Your task to perform on an android device: set default search engine in the chrome app Image 0: 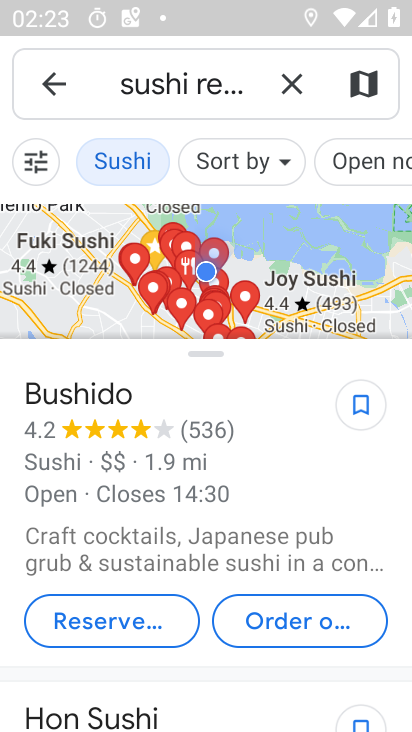
Step 0: press home button
Your task to perform on an android device: set default search engine in the chrome app Image 1: 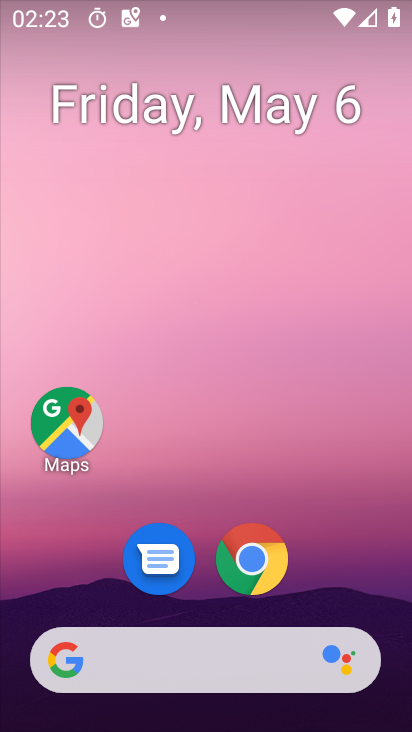
Step 1: drag from (303, 616) to (282, 9)
Your task to perform on an android device: set default search engine in the chrome app Image 2: 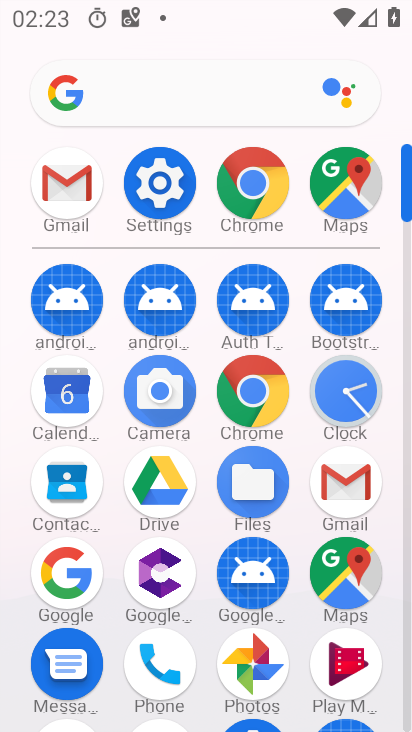
Step 2: click (267, 394)
Your task to perform on an android device: set default search engine in the chrome app Image 3: 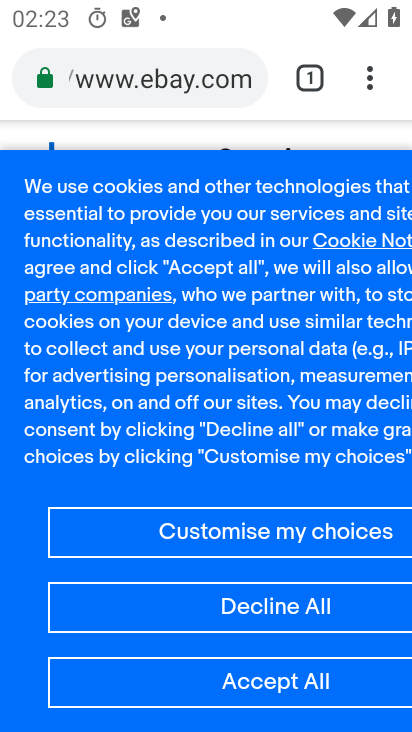
Step 3: click (382, 70)
Your task to perform on an android device: set default search engine in the chrome app Image 4: 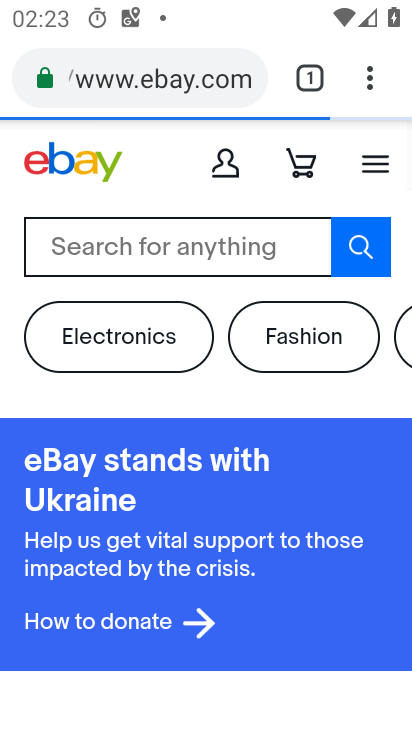
Step 4: drag from (365, 66) to (152, 626)
Your task to perform on an android device: set default search engine in the chrome app Image 5: 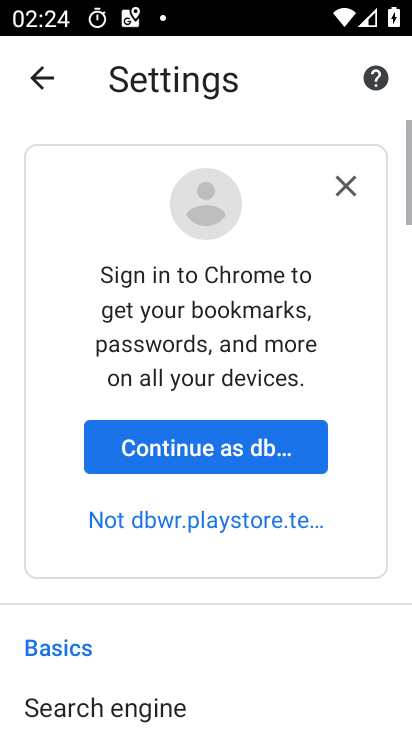
Step 5: drag from (247, 701) to (229, 228)
Your task to perform on an android device: set default search engine in the chrome app Image 6: 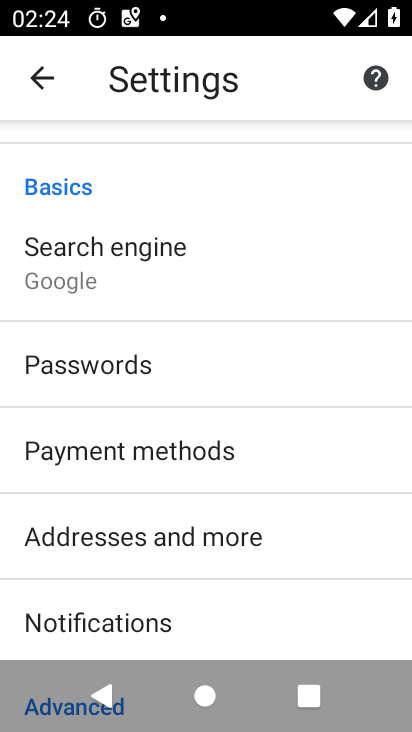
Step 6: click (200, 259)
Your task to perform on an android device: set default search engine in the chrome app Image 7: 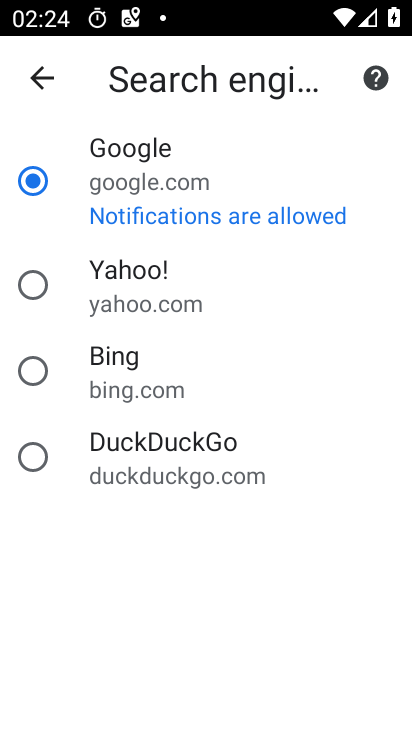
Step 7: task complete